Your task to perform on an android device: open a bookmark in the chrome app Image 0: 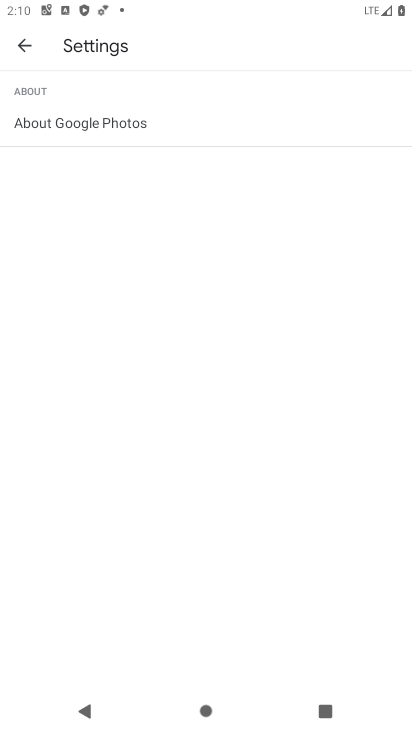
Step 0: press home button
Your task to perform on an android device: open a bookmark in the chrome app Image 1: 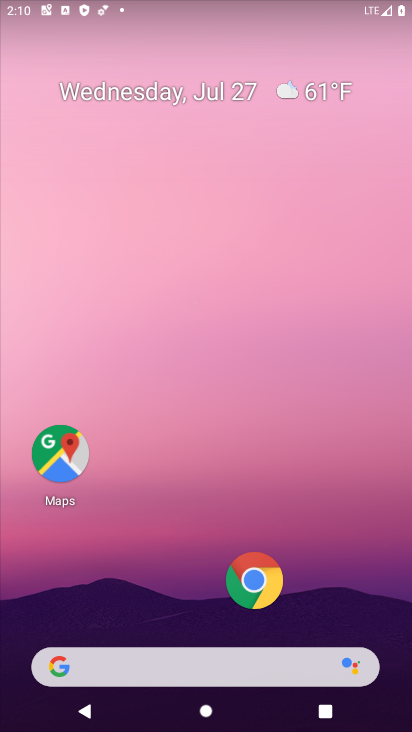
Step 1: click (230, 593)
Your task to perform on an android device: open a bookmark in the chrome app Image 2: 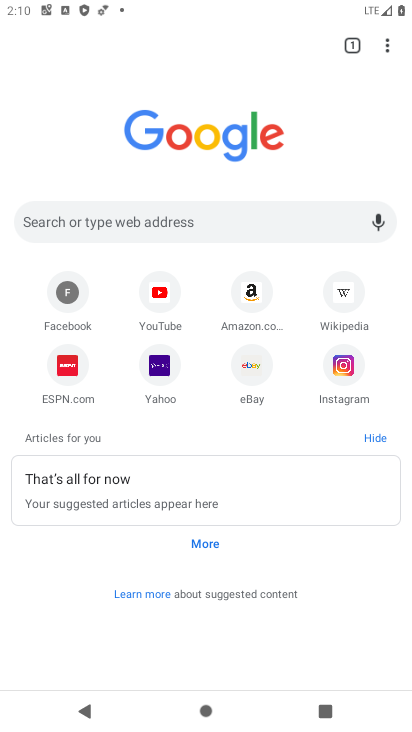
Step 2: click (391, 36)
Your task to perform on an android device: open a bookmark in the chrome app Image 3: 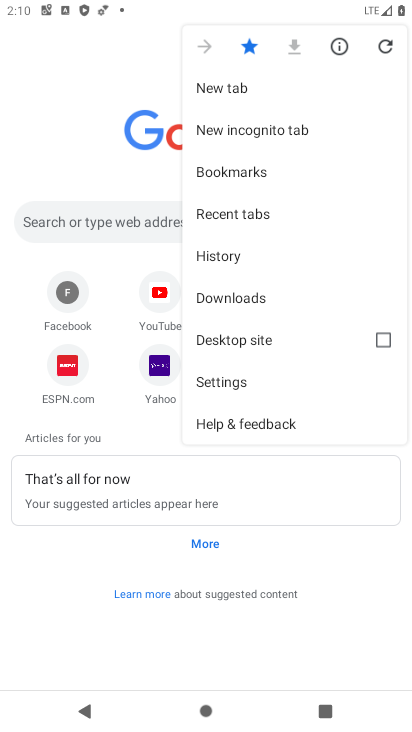
Step 3: click (292, 165)
Your task to perform on an android device: open a bookmark in the chrome app Image 4: 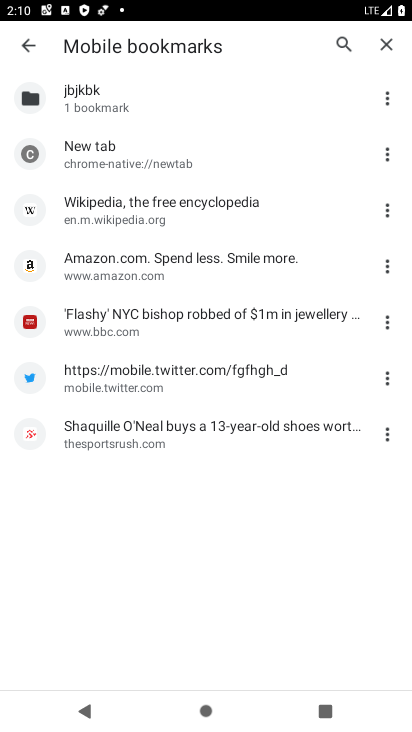
Step 4: click (150, 419)
Your task to perform on an android device: open a bookmark in the chrome app Image 5: 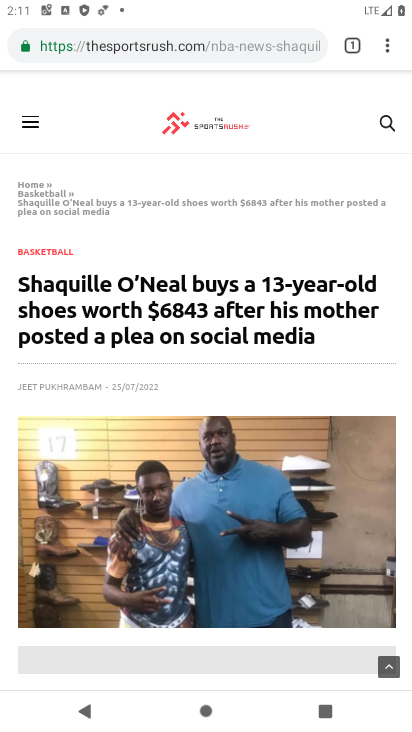
Step 5: task complete